Your task to perform on an android device: toggle translation in the chrome app Image 0: 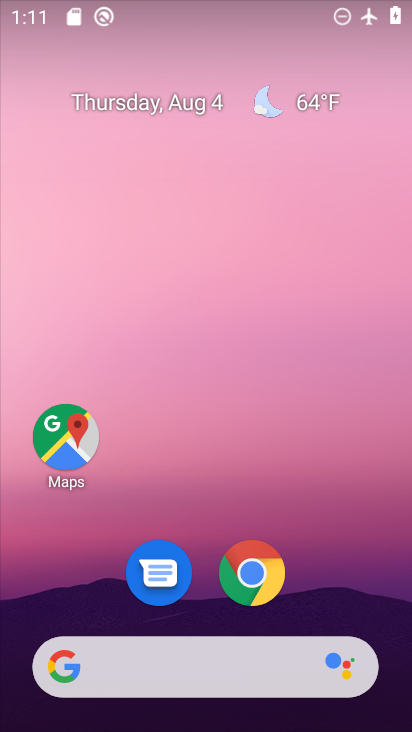
Step 0: drag from (378, 527) to (338, 65)
Your task to perform on an android device: toggle translation in the chrome app Image 1: 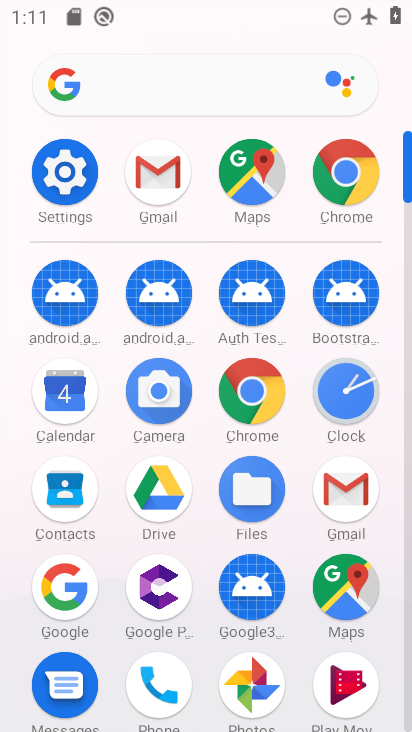
Step 1: click (256, 387)
Your task to perform on an android device: toggle translation in the chrome app Image 2: 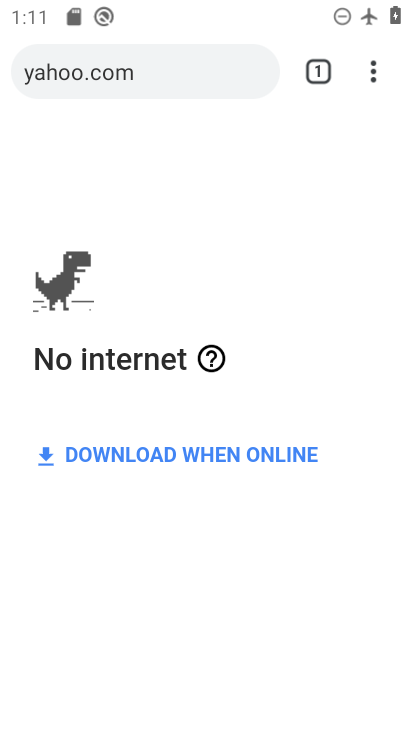
Step 2: drag from (384, 69) to (214, 561)
Your task to perform on an android device: toggle translation in the chrome app Image 3: 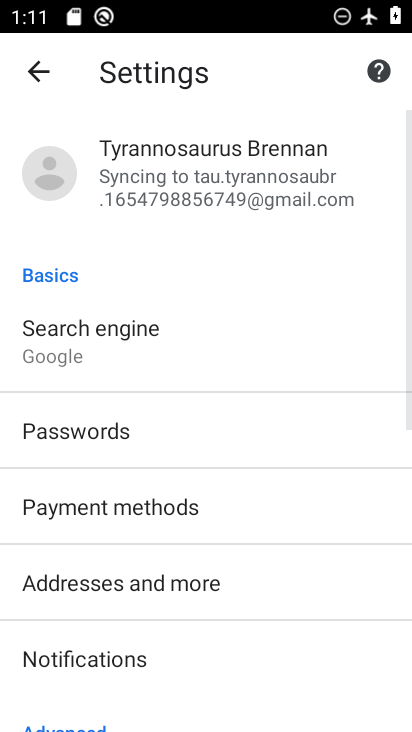
Step 3: drag from (303, 589) to (356, 165)
Your task to perform on an android device: toggle translation in the chrome app Image 4: 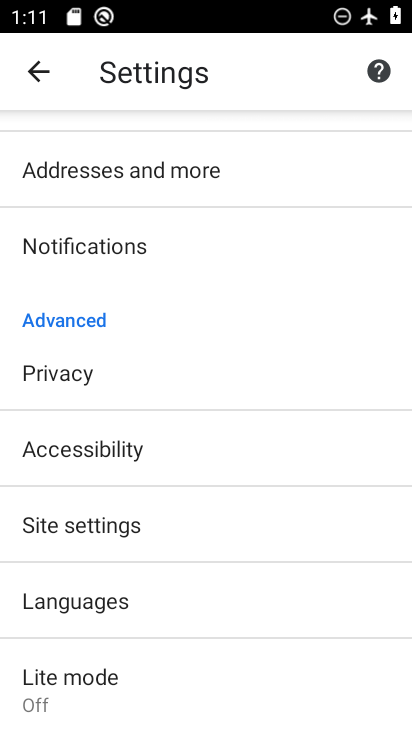
Step 4: click (135, 611)
Your task to perform on an android device: toggle translation in the chrome app Image 5: 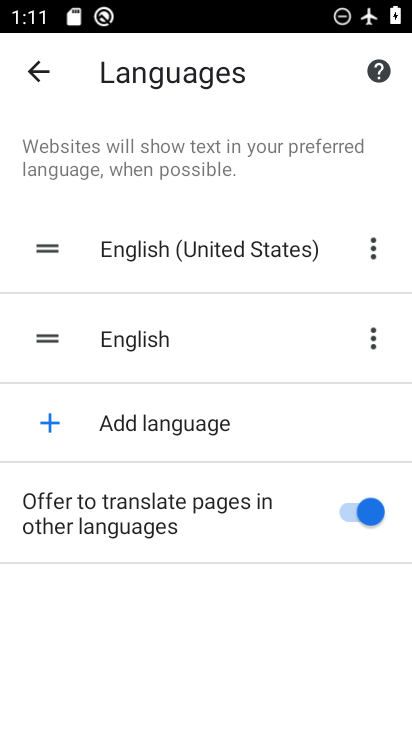
Step 5: click (378, 531)
Your task to perform on an android device: toggle translation in the chrome app Image 6: 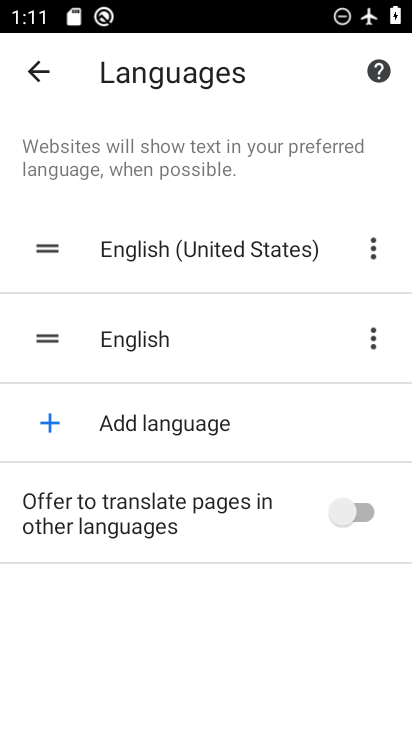
Step 6: task complete